Your task to perform on an android device: delete a single message in the gmail app Image 0: 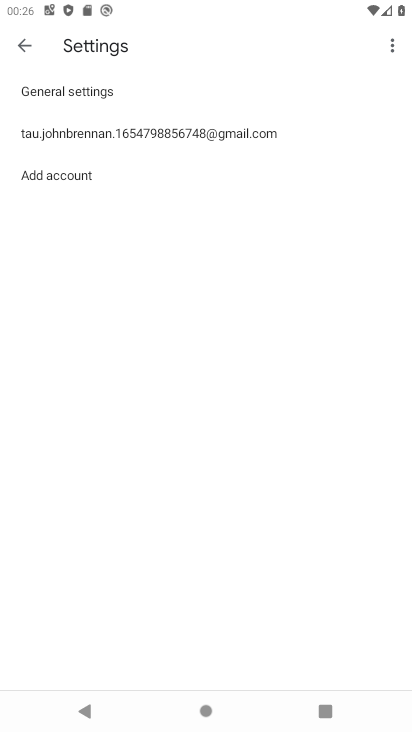
Step 0: click (21, 40)
Your task to perform on an android device: delete a single message in the gmail app Image 1: 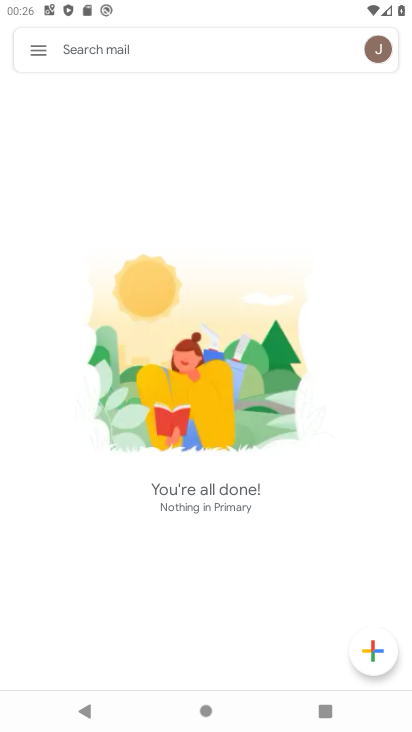
Step 1: task complete